Your task to perform on an android device: change the clock display to show seconds Image 0: 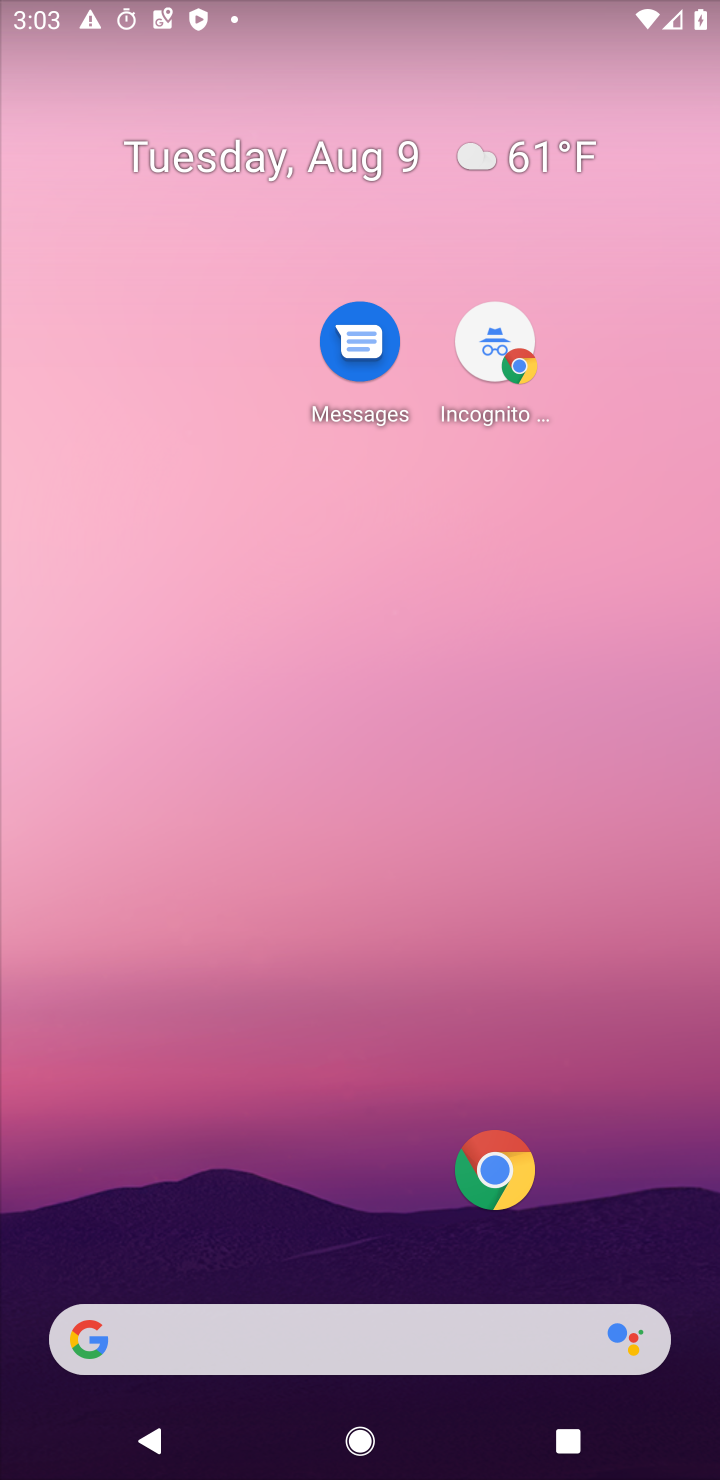
Step 0: drag from (311, 1218) to (716, 51)
Your task to perform on an android device: change the clock display to show seconds Image 1: 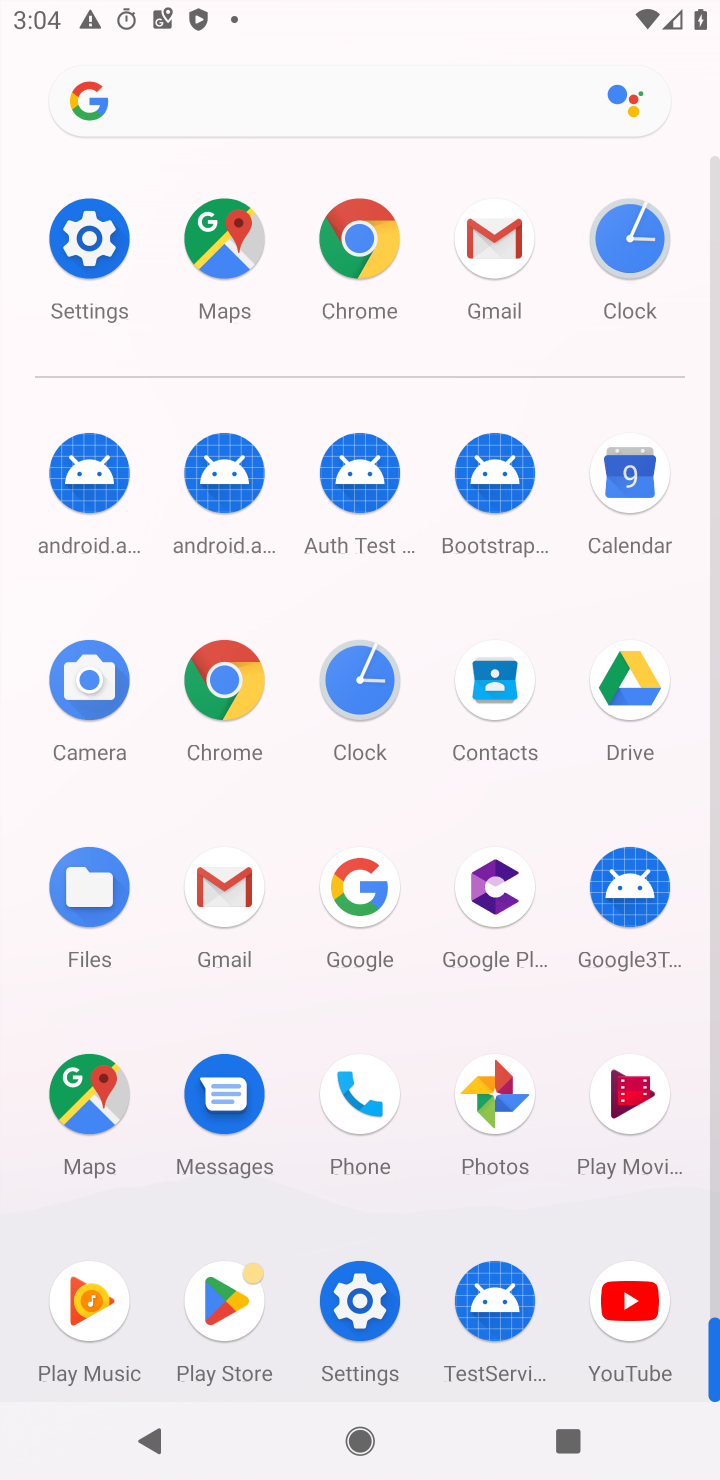
Step 1: click (346, 684)
Your task to perform on an android device: change the clock display to show seconds Image 2: 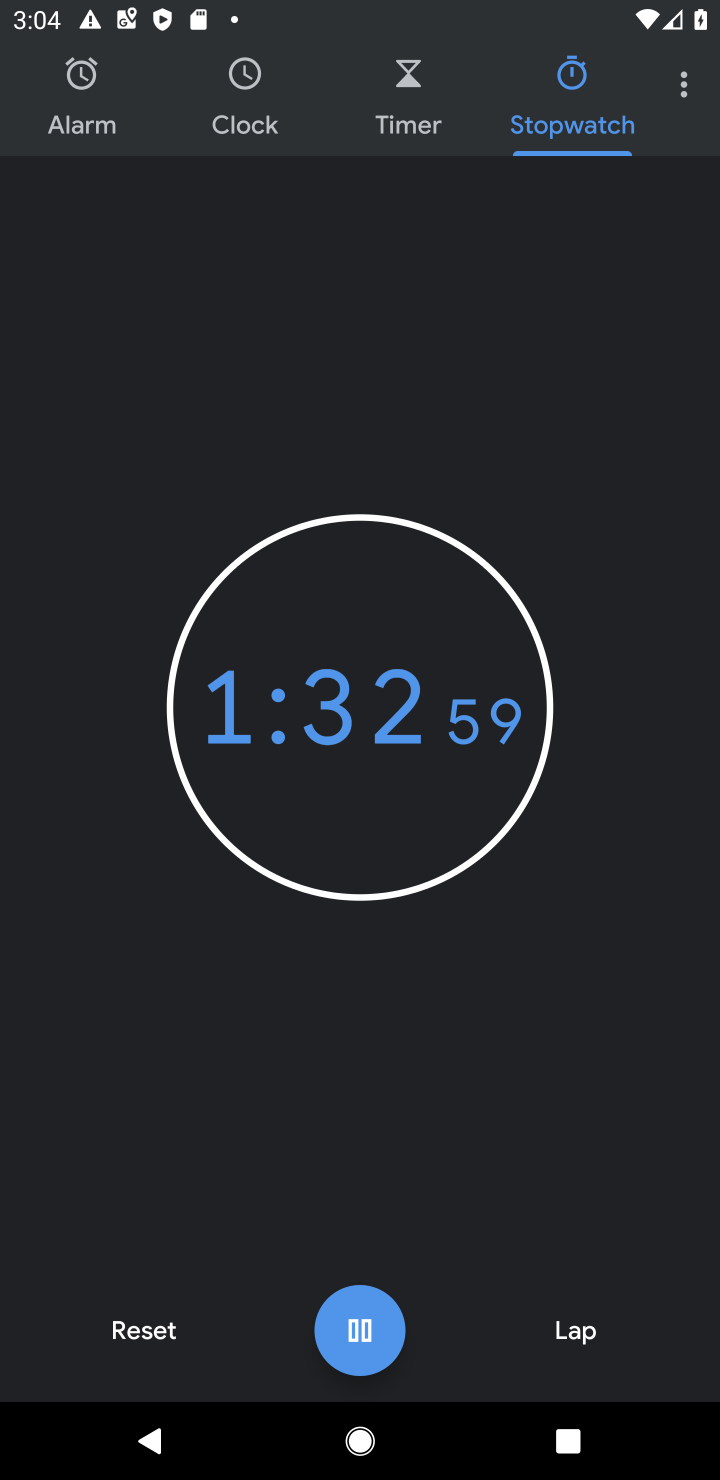
Step 2: click (685, 101)
Your task to perform on an android device: change the clock display to show seconds Image 3: 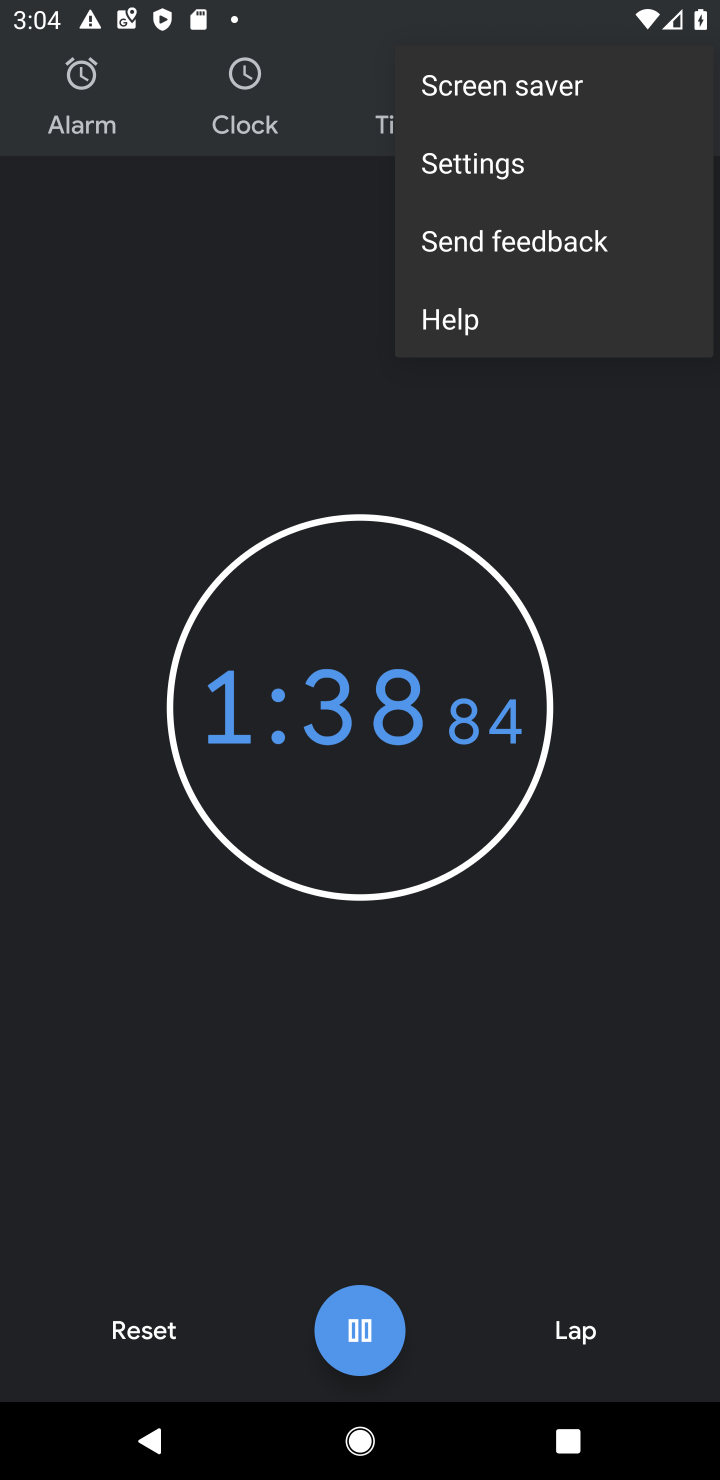
Step 3: click (461, 166)
Your task to perform on an android device: change the clock display to show seconds Image 4: 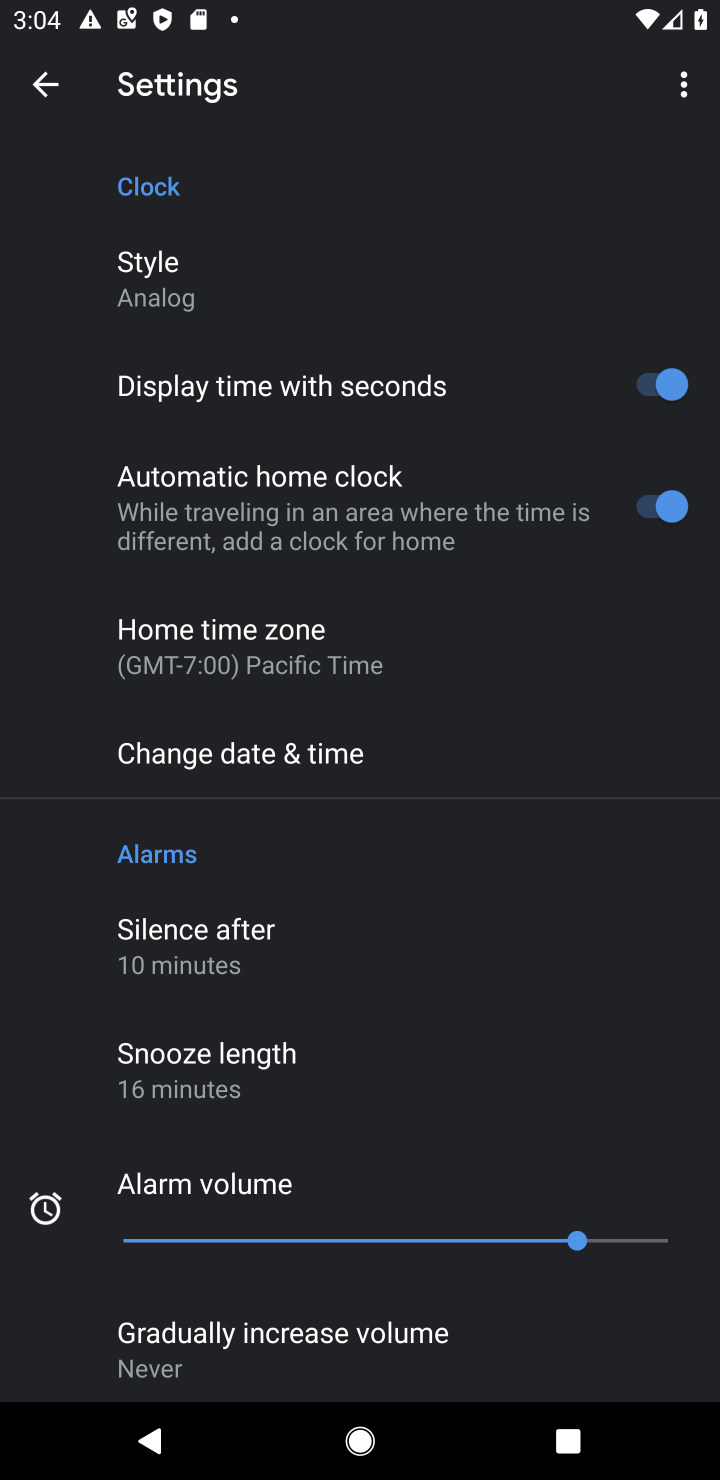
Step 4: click (225, 274)
Your task to perform on an android device: change the clock display to show seconds Image 5: 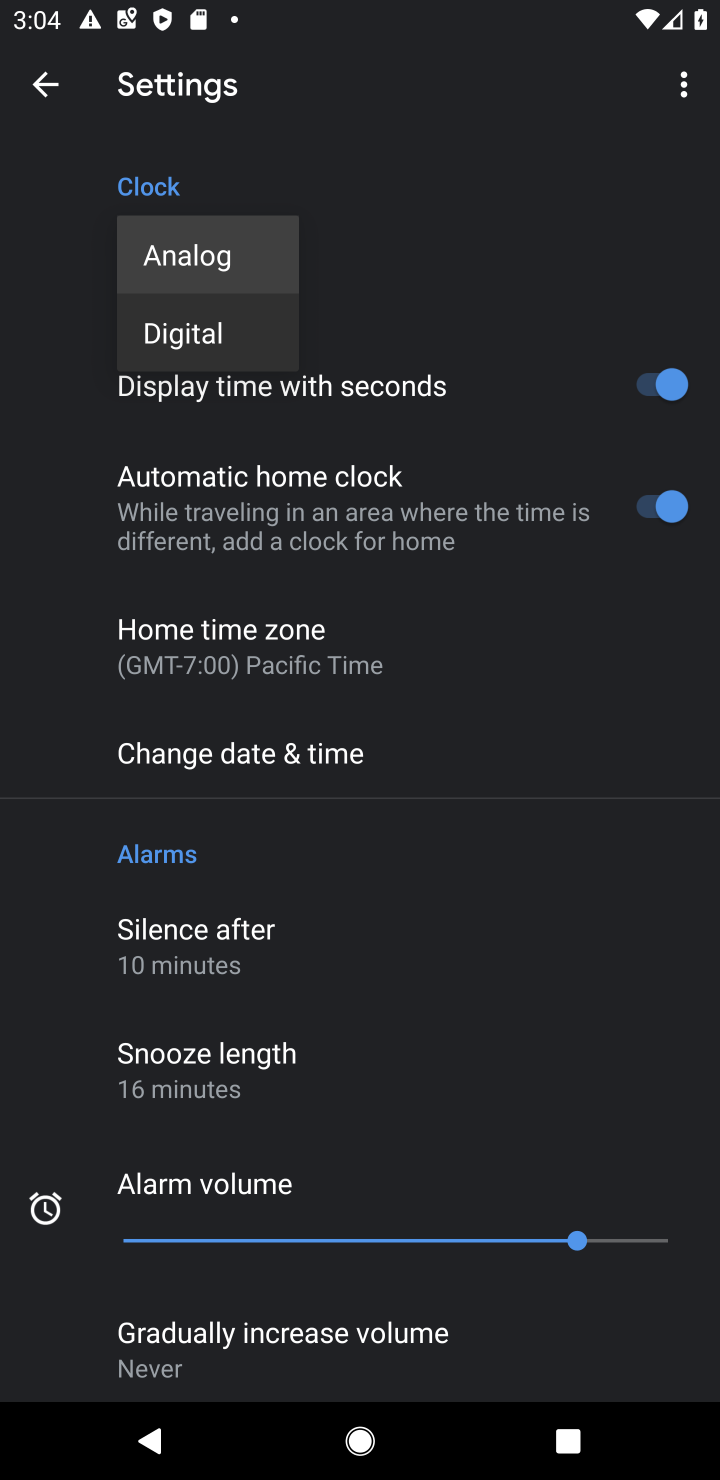
Step 5: click (222, 347)
Your task to perform on an android device: change the clock display to show seconds Image 6: 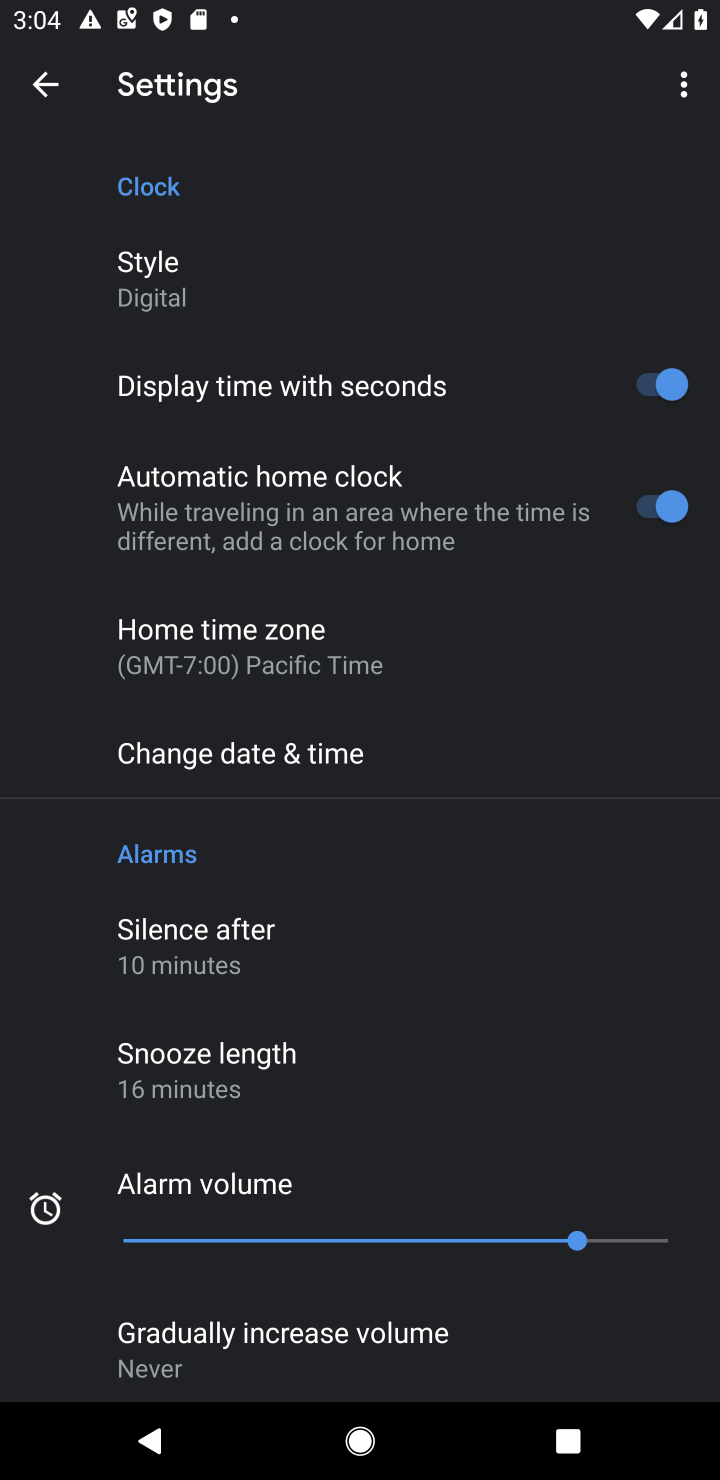
Step 6: task complete